Your task to perform on an android device: Show me recent news Image 0: 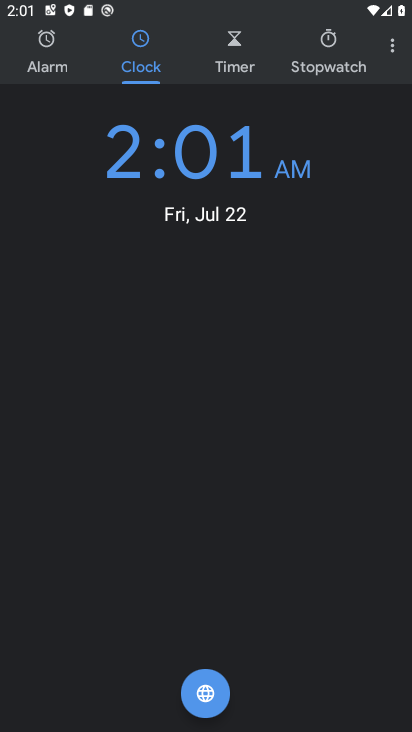
Step 0: press home button
Your task to perform on an android device: Show me recent news Image 1: 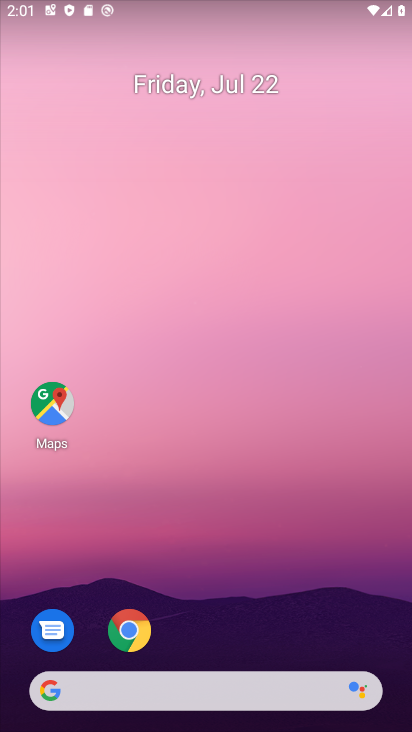
Step 1: click (195, 670)
Your task to perform on an android device: Show me recent news Image 2: 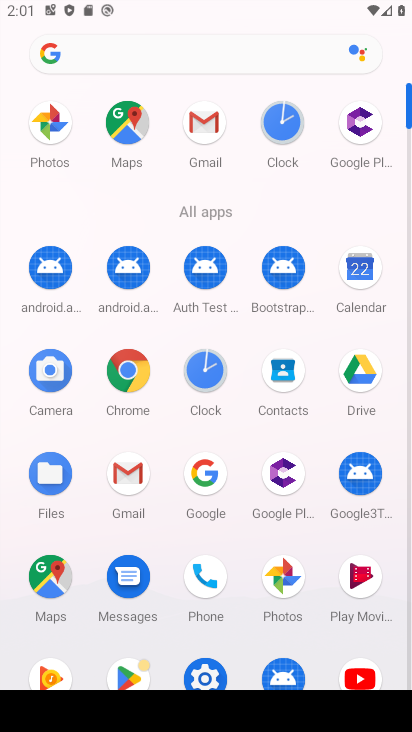
Step 2: click (201, 478)
Your task to perform on an android device: Show me recent news Image 3: 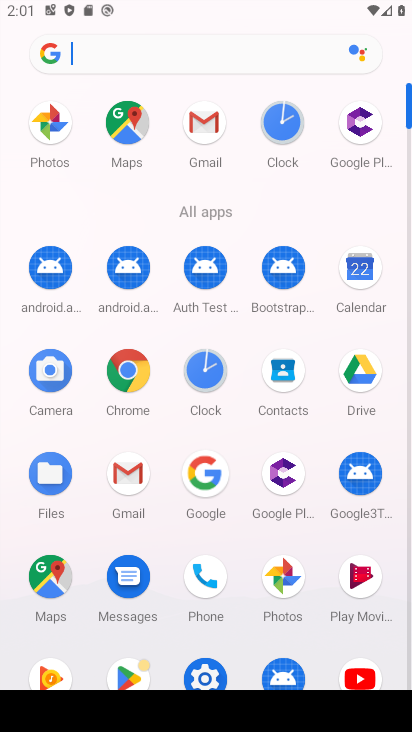
Step 3: click (210, 465)
Your task to perform on an android device: Show me recent news Image 4: 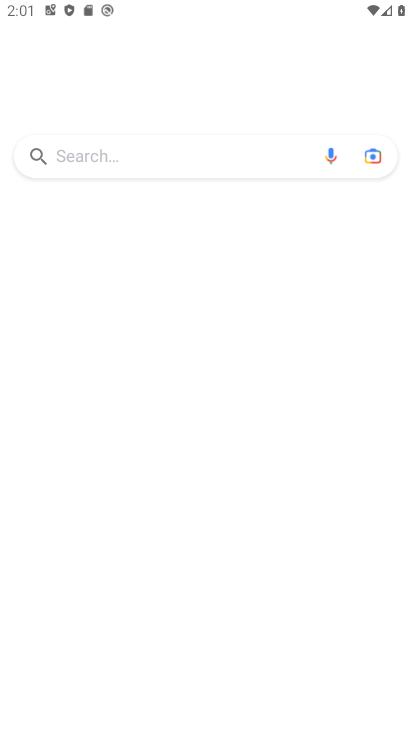
Step 4: click (177, 147)
Your task to perform on an android device: Show me recent news Image 5: 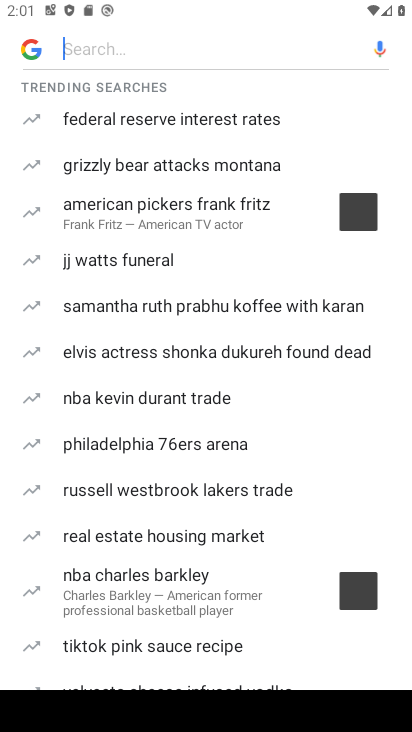
Step 5: type "recent news"
Your task to perform on an android device: Show me recent news Image 6: 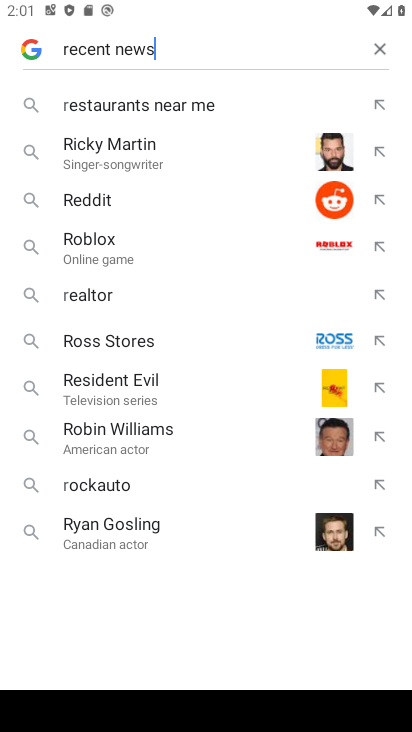
Step 6: type ""
Your task to perform on an android device: Show me recent news Image 7: 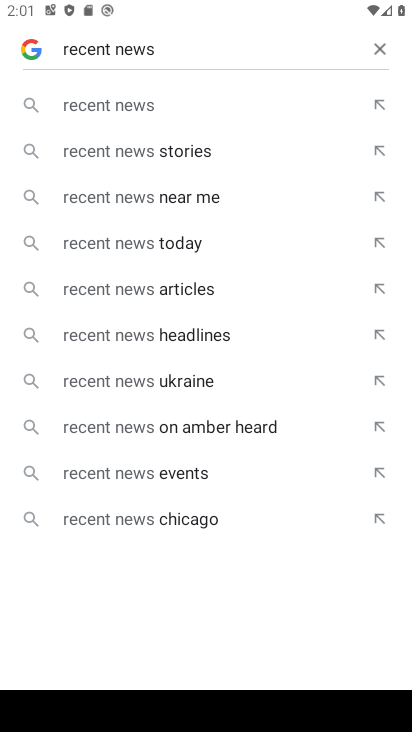
Step 7: click (122, 102)
Your task to perform on an android device: Show me recent news Image 8: 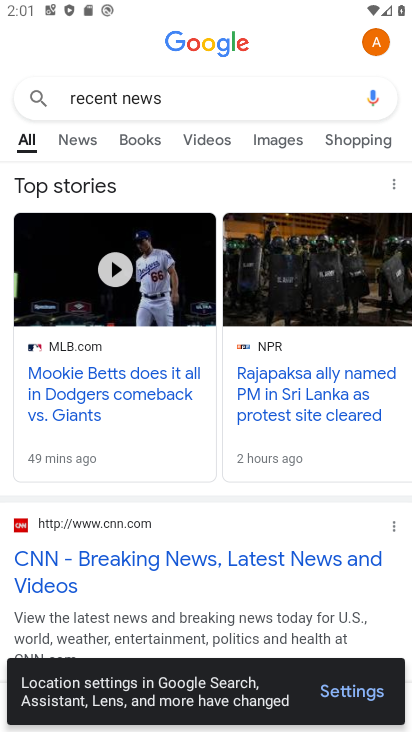
Step 8: task complete